Your task to perform on an android device: check android version Image 0: 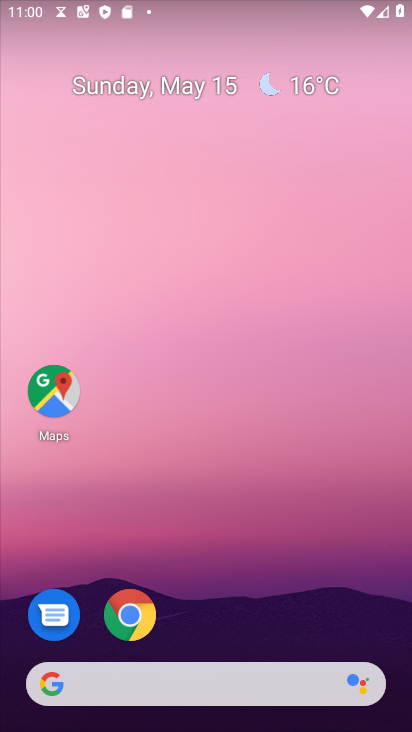
Step 0: drag from (252, 603) to (330, 40)
Your task to perform on an android device: check android version Image 1: 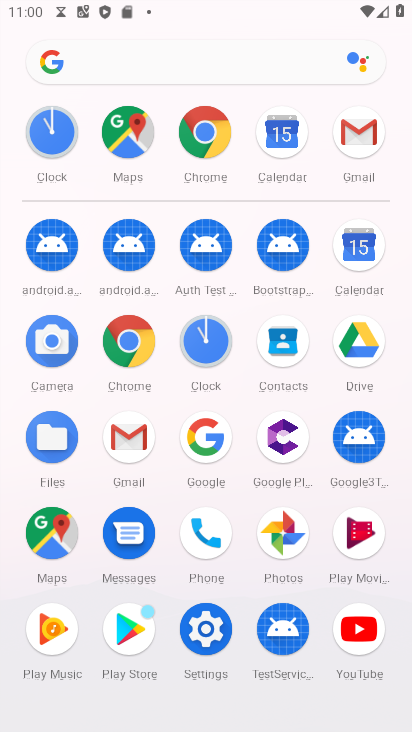
Step 1: click (225, 631)
Your task to perform on an android device: check android version Image 2: 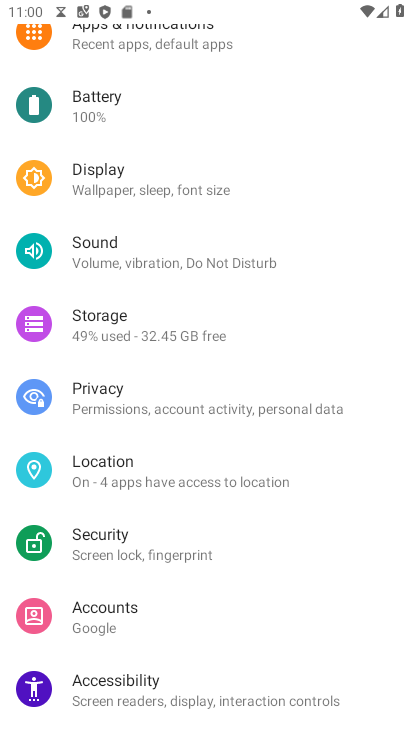
Step 2: drag from (121, 706) to (110, 133)
Your task to perform on an android device: check android version Image 3: 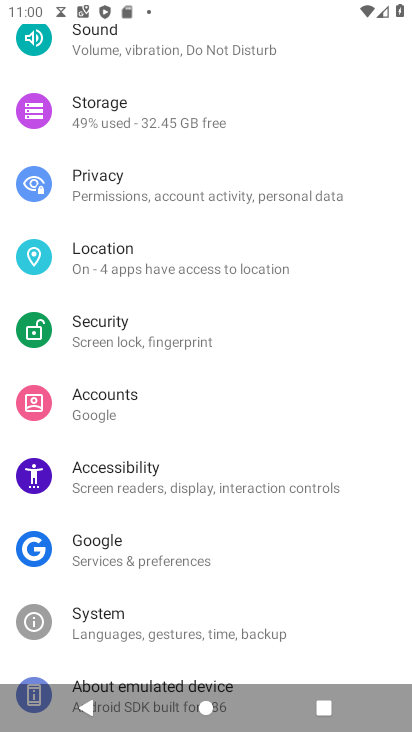
Step 3: click (142, 678)
Your task to perform on an android device: check android version Image 4: 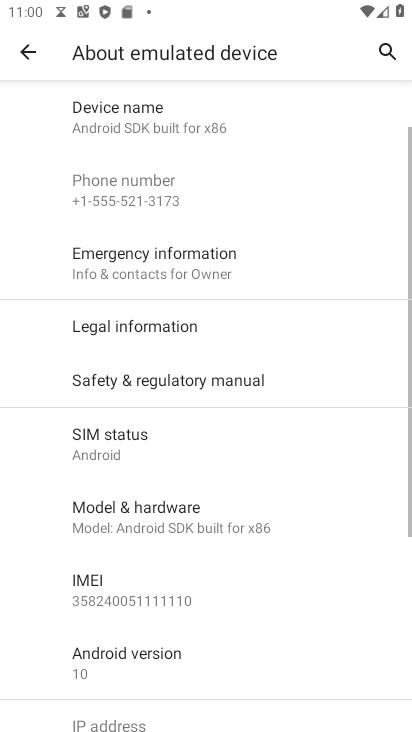
Step 4: drag from (142, 678) to (137, 509)
Your task to perform on an android device: check android version Image 5: 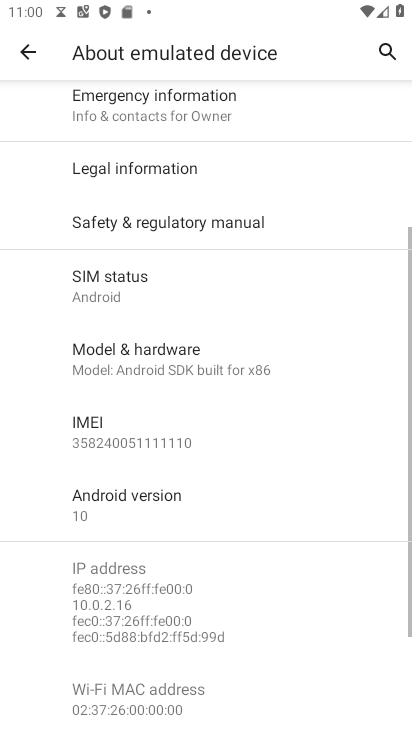
Step 5: click (122, 524)
Your task to perform on an android device: check android version Image 6: 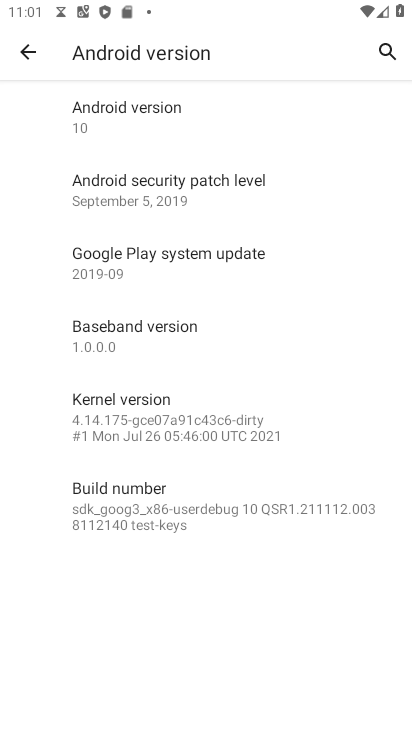
Step 6: task complete